Your task to perform on an android device: turn off smart reply in the gmail app Image 0: 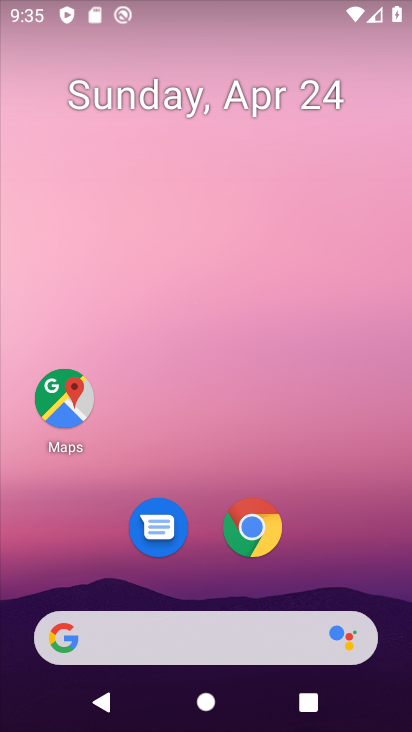
Step 0: drag from (204, 539) to (264, 140)
Your task to perform on an android device: turn off smart reply in the gmail app Image 1: 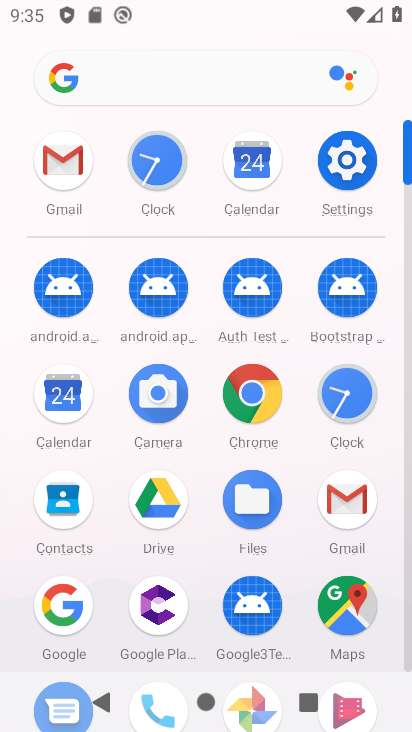
Step 1: click (58, 158)
Your task to perform on an android device: turn off smart reply in the gmail app Image 2: 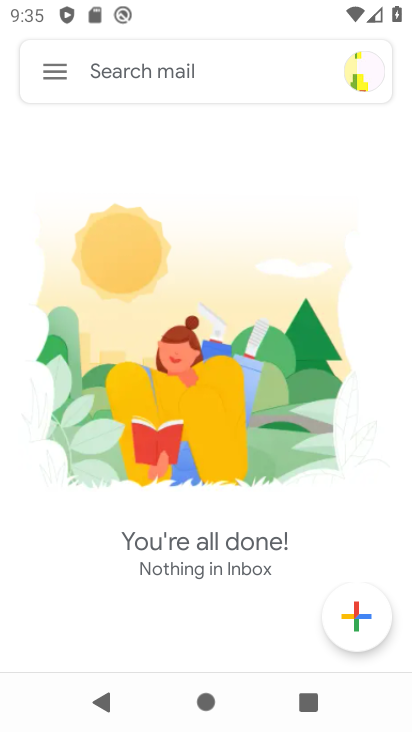
Step 2: click (51, 70)
Your task to perform on an android device: turn off smart reply in the gmail app Image 3: 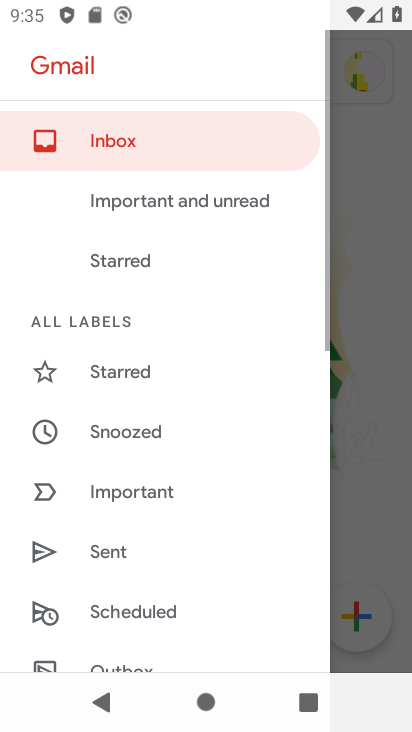
Step 3: drag from (141, 673) to (198, 57)
Your task to perform on an android device: turn off smart reply in the gmail app Image 4: 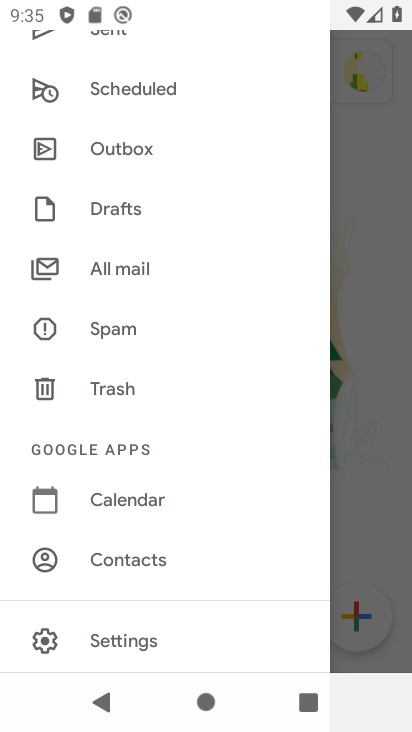
Step 4: click (111, 640)
Your task to perform on an android device: turn off smart reply in the gmail app Image 5: 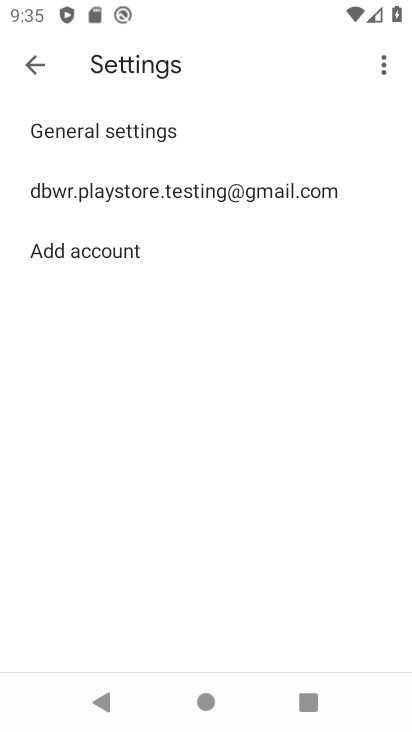
Step 5: click (93, 191)
Your task to perform on an android device: turn off smart reply in the gmail app Image 6: 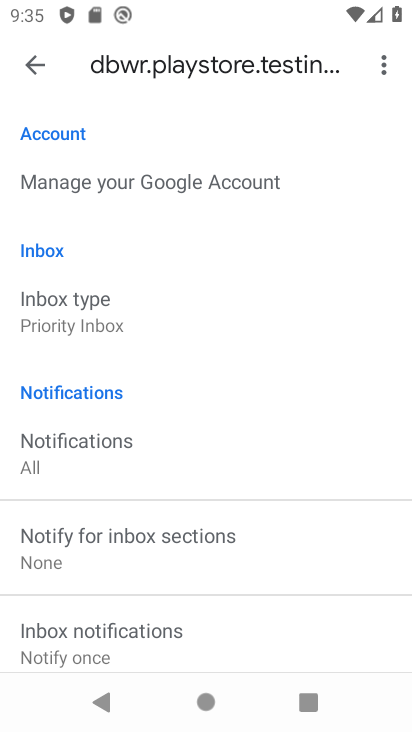
Step 6: drag from (95, 668) to (230, 27)
Your task to perform on an android device: turn off smart reply in the gmail app Image 7: 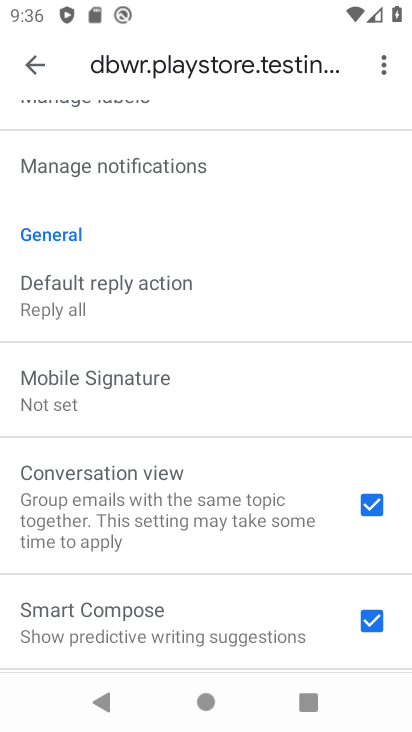
Step 7: drag from (125, 473) to (199, 67)
Your task to perform on an android device: turn off smart reply in the gmail app Image 8: 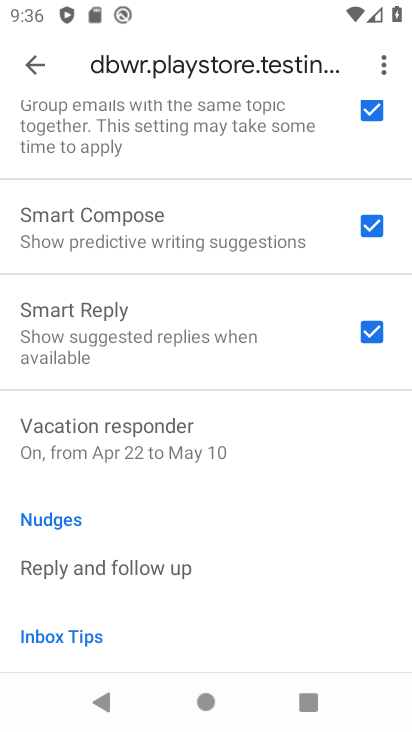
Step 8: click (365, 330)
Your task to perform on an android device: turn off smart reply in the gmail app Image 9: 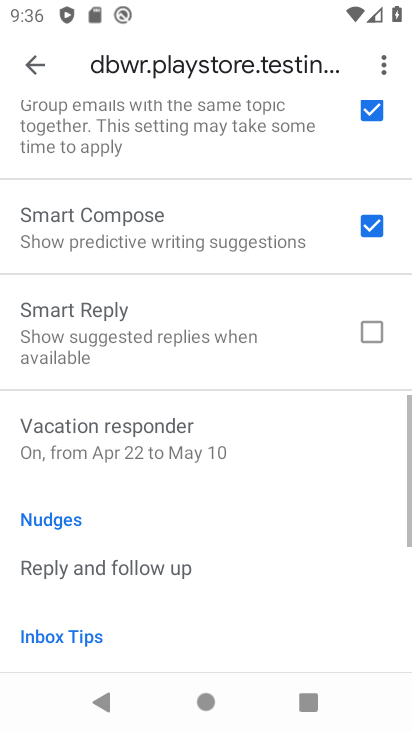
Step 9: task complete